Your task to perform on an android device: toggle notifications settings in the gmail app Image 0: 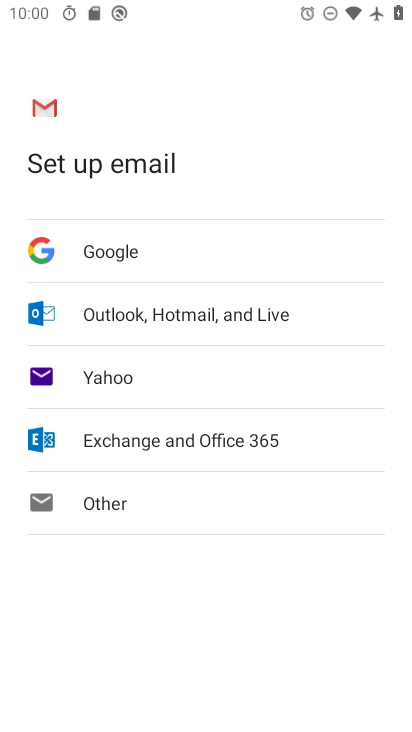
Step 0: press home button
Your task to perform on an android device: toggle notifications settings in the gmail app Image 1: 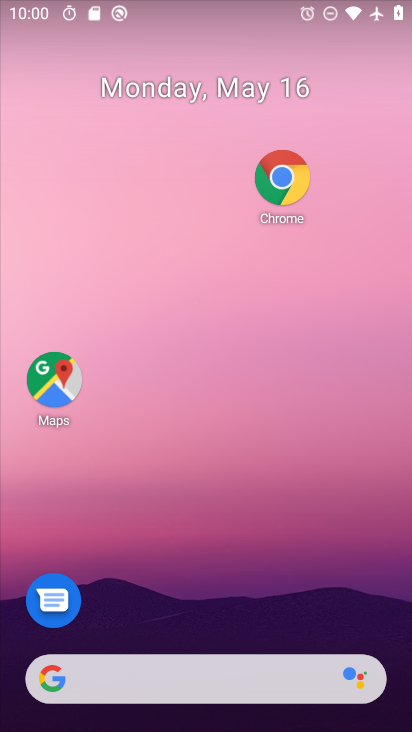
Step 1: drag from (174, 675) to (252, 153)
Your task to perform on an android device: toggle notifications settings in the gmail app Image 2: 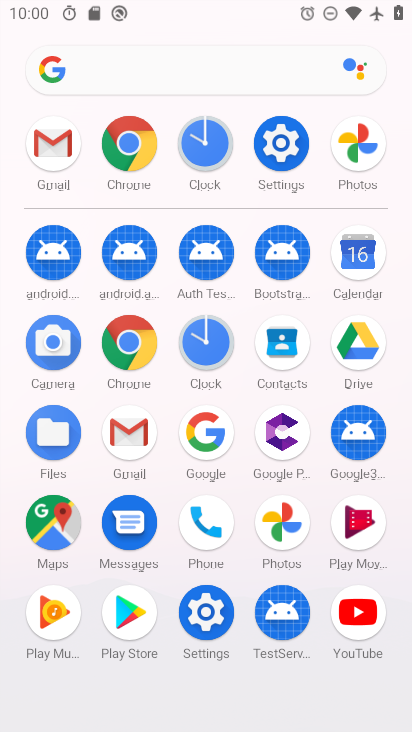
Step 2: click (123, 440)
Your task to perform on an android device: toggle notifications settings in the gmail app Image 3: 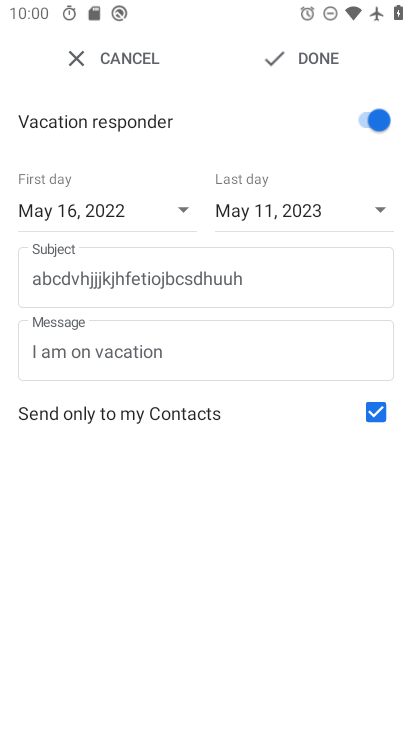
Step 3: click (76, 63)
Your task to perform on an android device: toggle notifications settings in the gmail app Image 4: 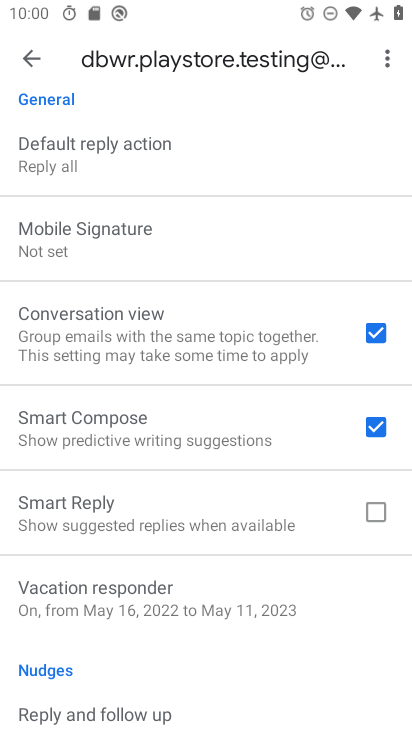
Step 4: drag from (207, 167) to (188, 541)
Your task to perform on an android device: toggle notifications settings in the gmail app Image 5: 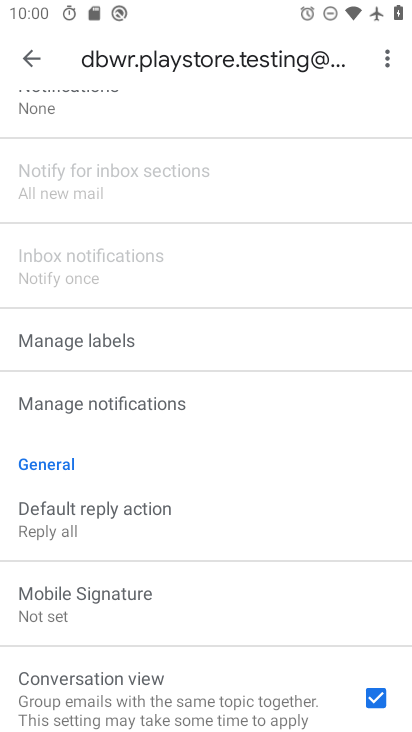
Step 5: drag from (205, 200) to (174, 539)
Your task to perform on an android device: toggle notifications settings in the gmail app Image 6: 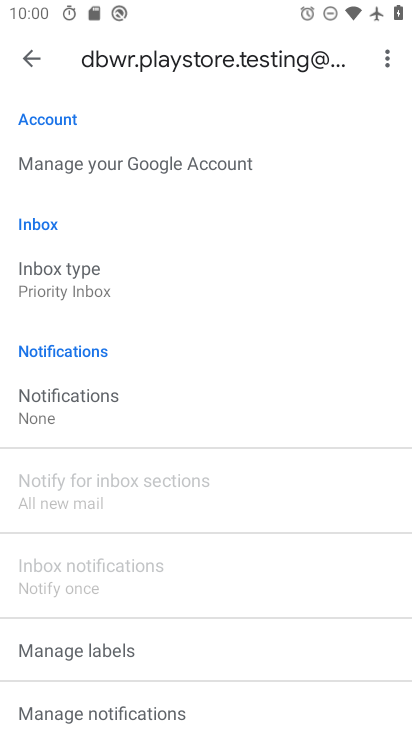
Step 6: click (108, 409)
Your task to perform on an android device: toggle notifications settings in the gmail app Image 7: 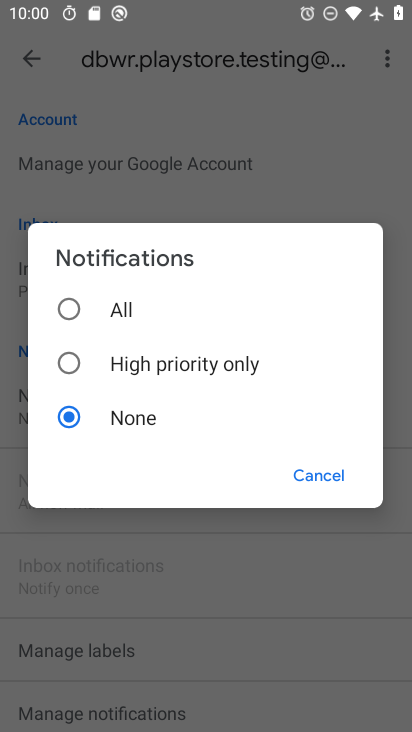
Step 7: click (73, 310)
Your task to perform on an android device: toggle notifications settings in the gmail app Image 8: 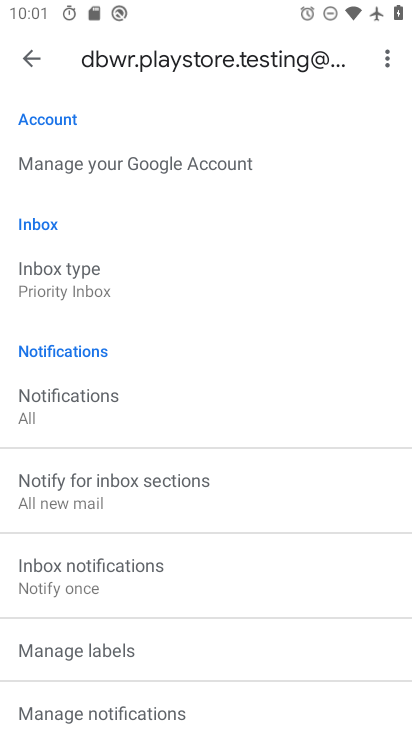
Step 8: task complete